Your task to perform on an android device: snooze an email in the gmail app Image 0: 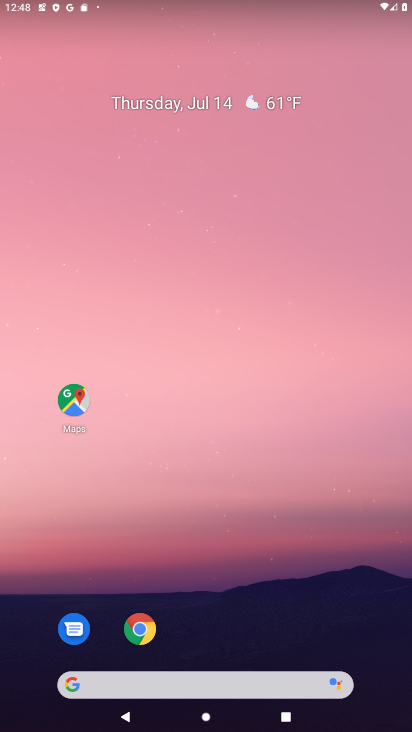
Step 0: drag from (228, 622) to (222, 205)
Your task to perform on an android device: snooze an email in the gmail app Image 1: 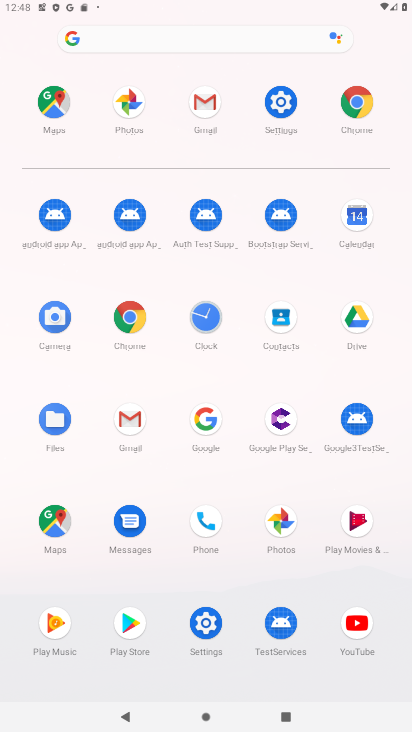
Step 1: click (198, 107)
Your task to perform on an android device: snooze an email in the gmail app Image 2: 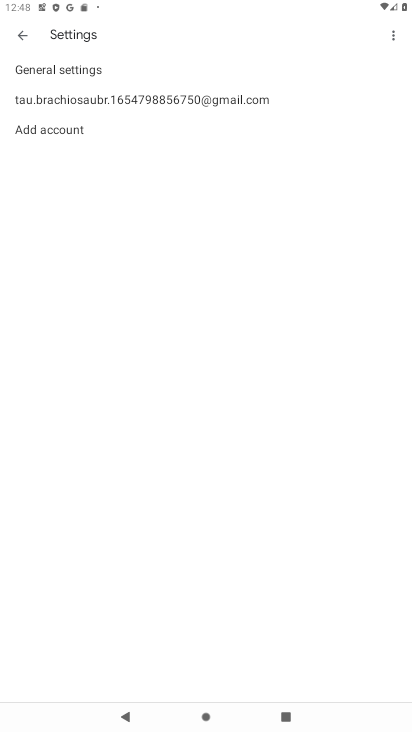
Step 2: click (19, 42)
Your task to perform on an android device: snooze an email in the gmail app Image 3: 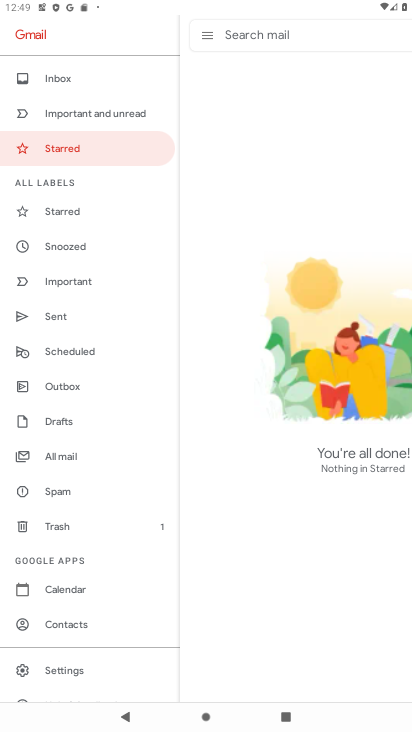
Step 3: click (91, 239)
Your task to perform on an android device: snooze an email in the gmail app Image 4: 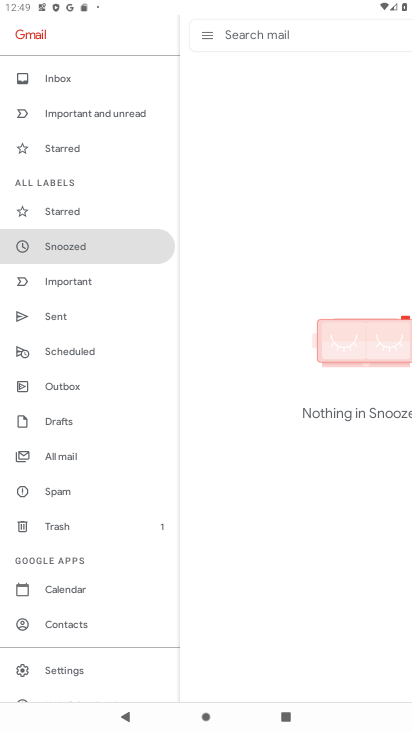
Step 4: task complete